Your task to perform on an android device: Turn on the flashlight Image 0: 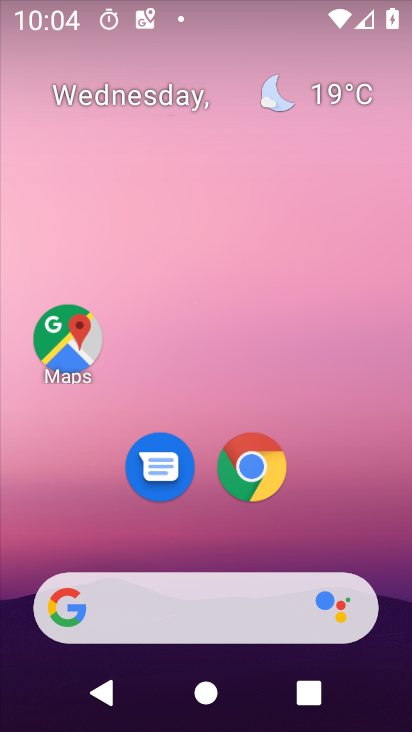
Step 0: drag from (219, 10) to (241, 496)
Your task to perform on an android device: Turn on the flashlight Image 1: 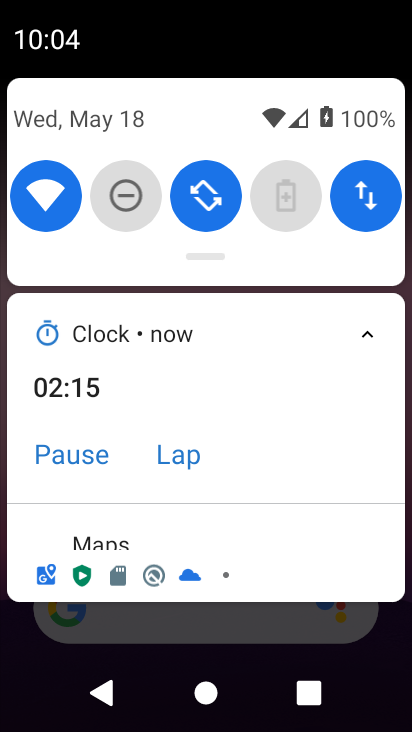
Step 1: task complete